Your task to perform on an android device: Open the calendar app, open the side menu, and click the "Day" option Image 0: 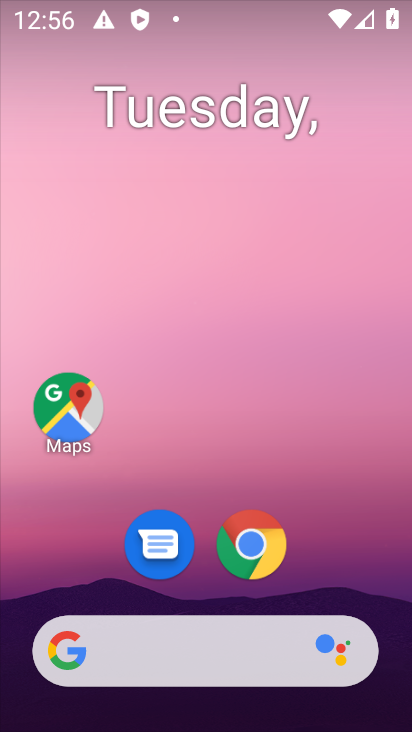
Step 0: click (189, 106)
Your task to perform on an android device: Open the calendar app, open the side menu, and click the "Day" option Image 1: 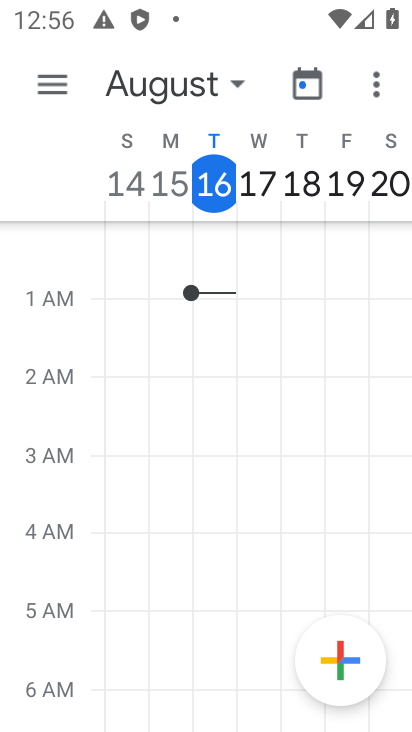
Step 1: click (40, 71)
Your task to perform on an android device: Open the calendar app, open the side menu, and click the "Day" option Image 2: 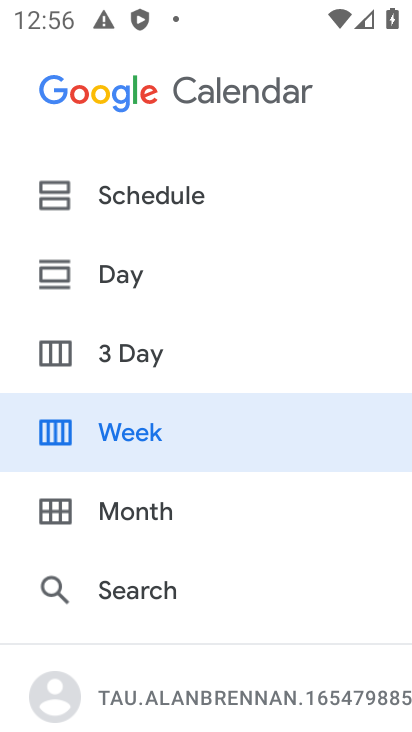
Step 2: click (134, 293)
Your task to perform on an android device: Open the calendar app, open the side menu, and click the "Day" option Image 3: 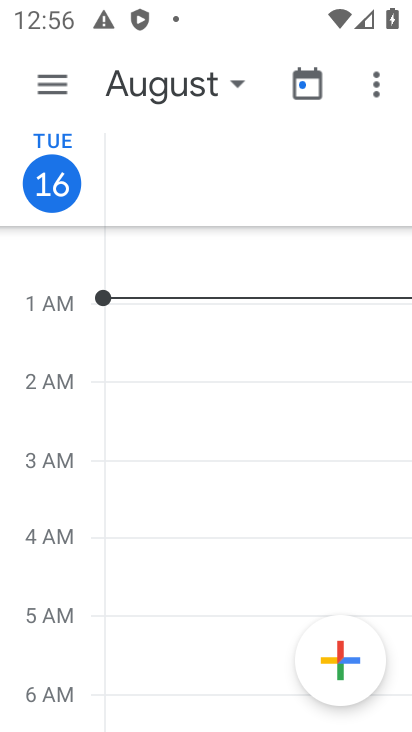
Step 3: task complete